Your task to perform on an android device: turn on notifications settings in the gmail app Image 0: 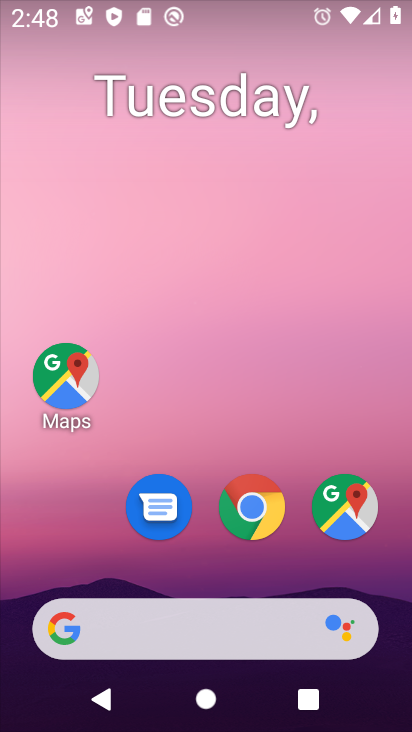
Step 0: drag from (225, 574) to (294, 116)
Your task to perform on an android device: turn on notifications settings in the gmail app Image 1: 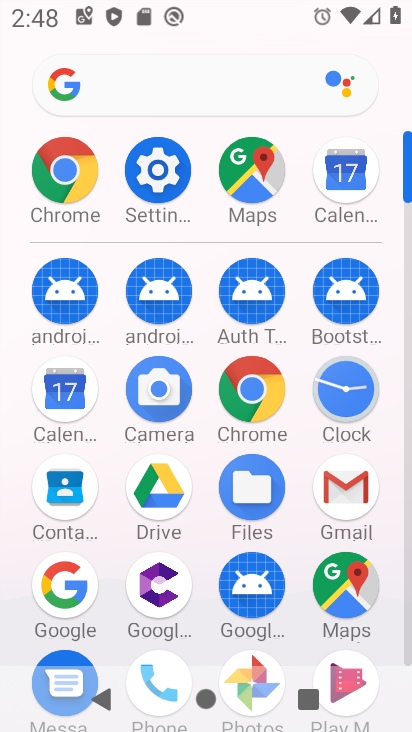
Step 1: click (339, 484)
Your task to perform on an android device: turn on notifications settings in the gmail app Image 2: 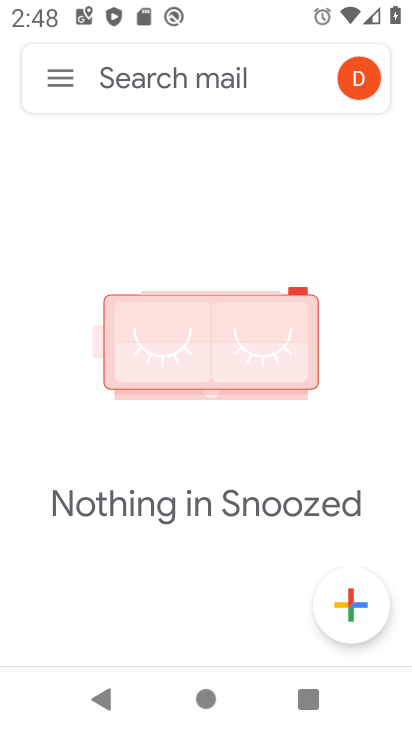
Step 2: click (53, 78)
Your task to perform on an android device: turn on notifications settings in the gmail app Image 3: 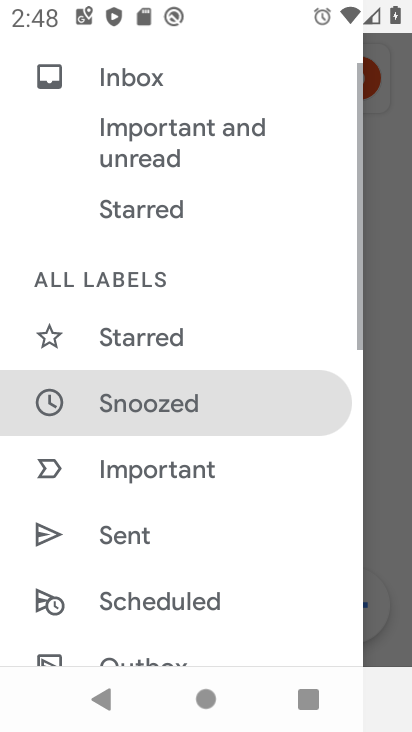
Step 3: drag from (180, 539) to (215, 242)
Your task to perform on an android device: turn on notifications settings in the gmail app Image 4: 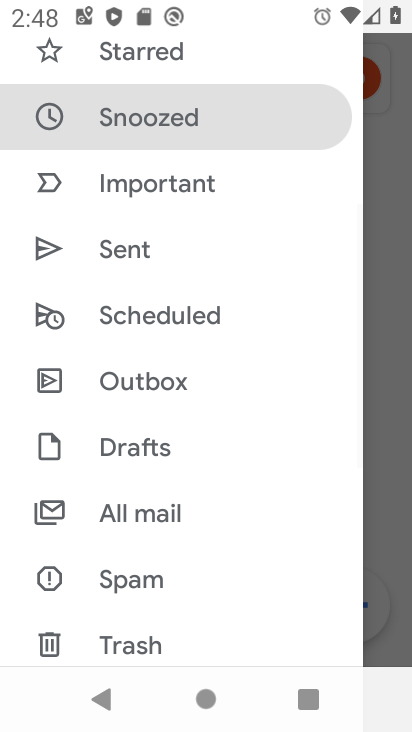
Step 4: drag from (142, 582) to (243, 259)
Your task to perform on an android device: turn on notifications settings in the gmail app Image 5: 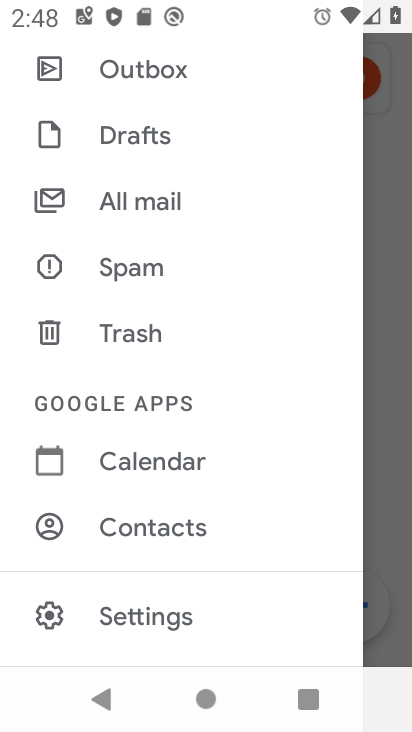
Step 5: click (177, 624)
Your task to perform on an android device: turn on notifications settings in the gmail app Image 6: 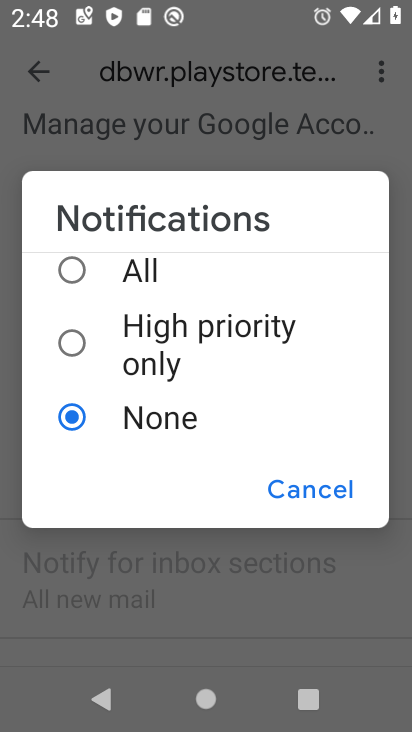
Step 6: click (114, 273)
Your task to perform on an android device: turn on notifications settings in the gmail app Image 7: 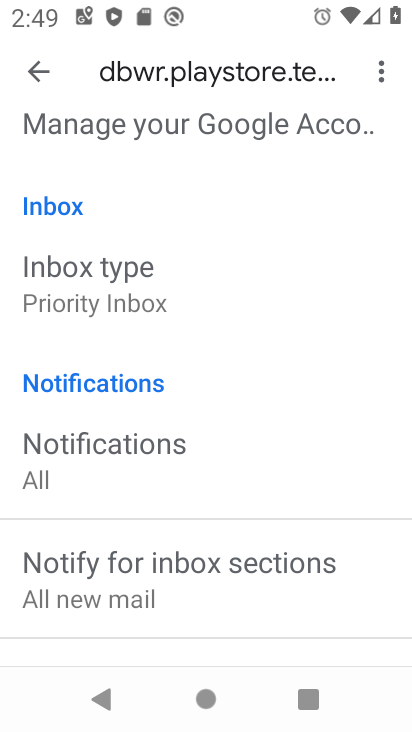
Step 7: task complete